Your task to perform on an android device: Search for seafood restaurants on Google Maps Image 0: 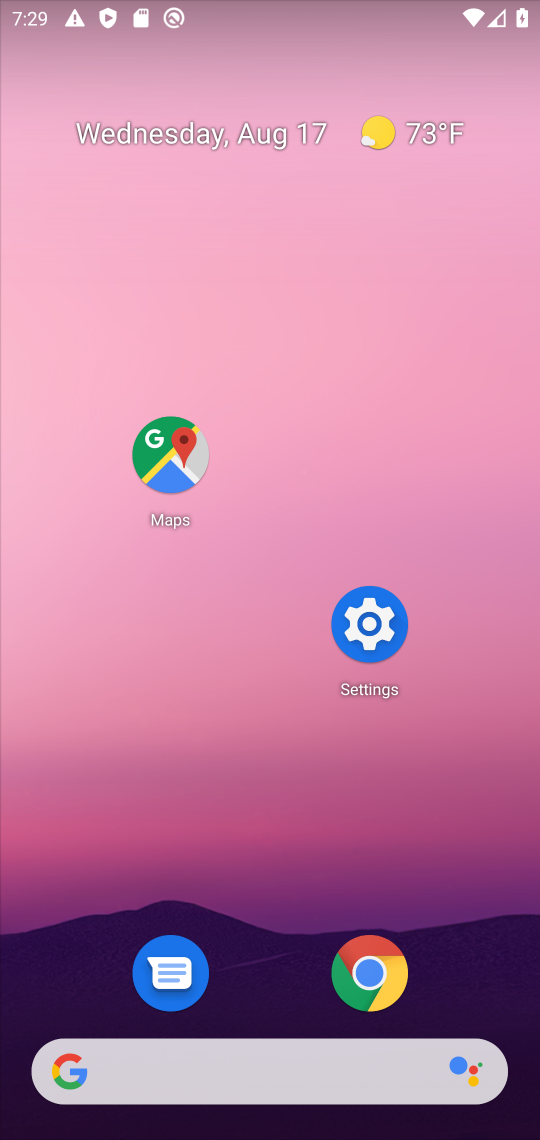
Step 0: click (167, 463)
Your task to perform on an android device: Search for seafood restaurants on Google Maps Image 1: 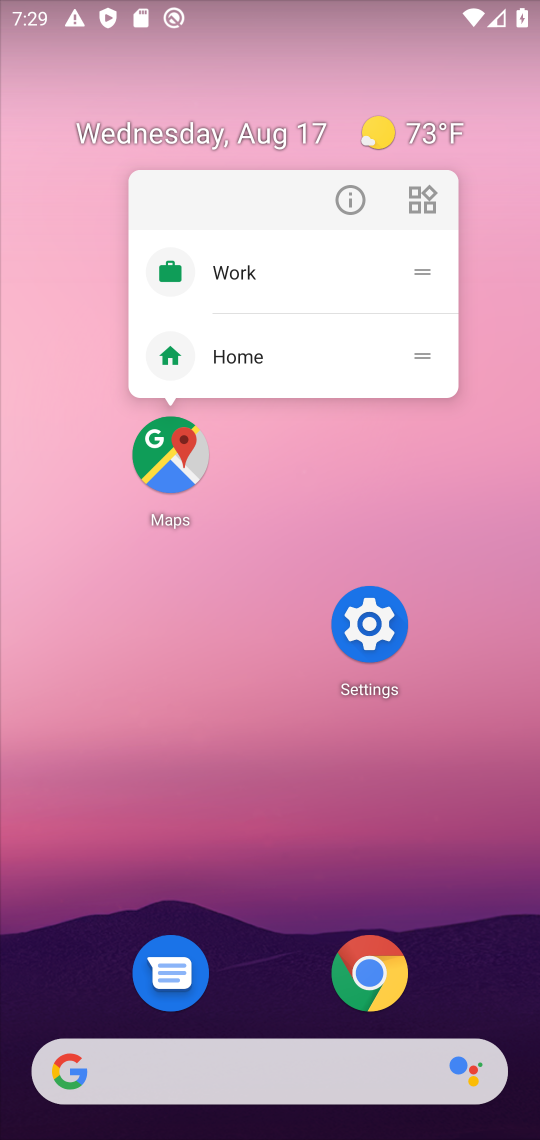
Step 1: click (171, 461)
Your task to perform on an android device: Search for seafood restaurants on Google Maps Image 2: 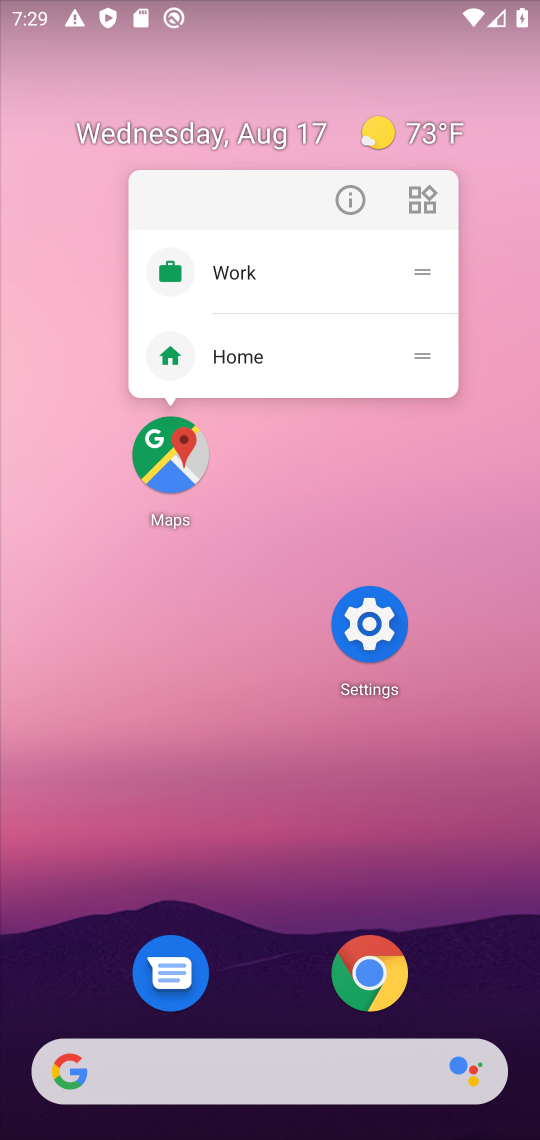
Step 2: click (171, 458)
Your task to perform on an android device: Search for seafood restaurants on Google Maps Image 3: 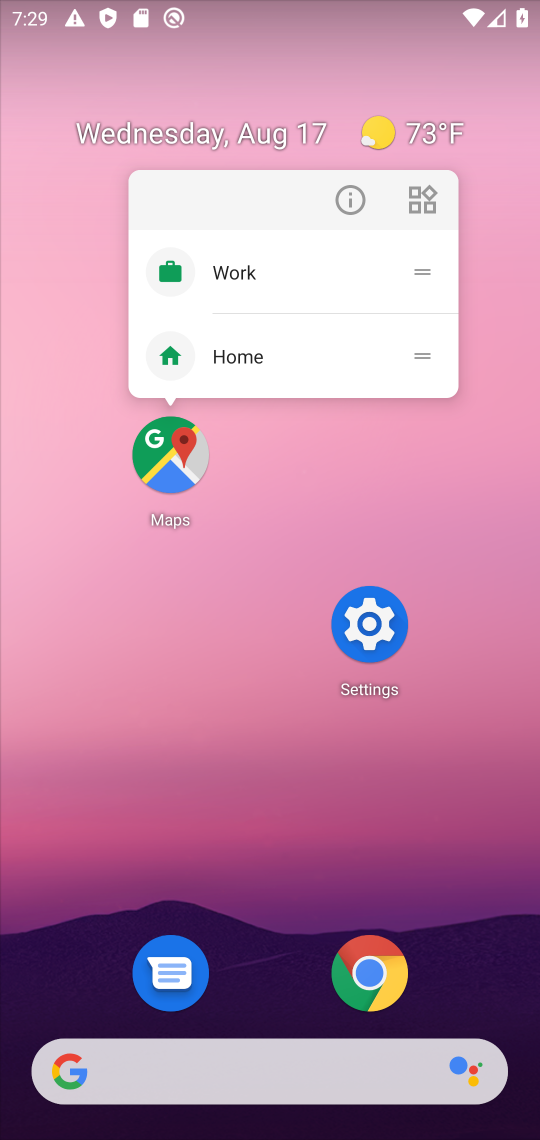
Step 3: click (170, 466)
Your task to perform on an android device: Search for seafood restaurants on Google Maps Image 4: 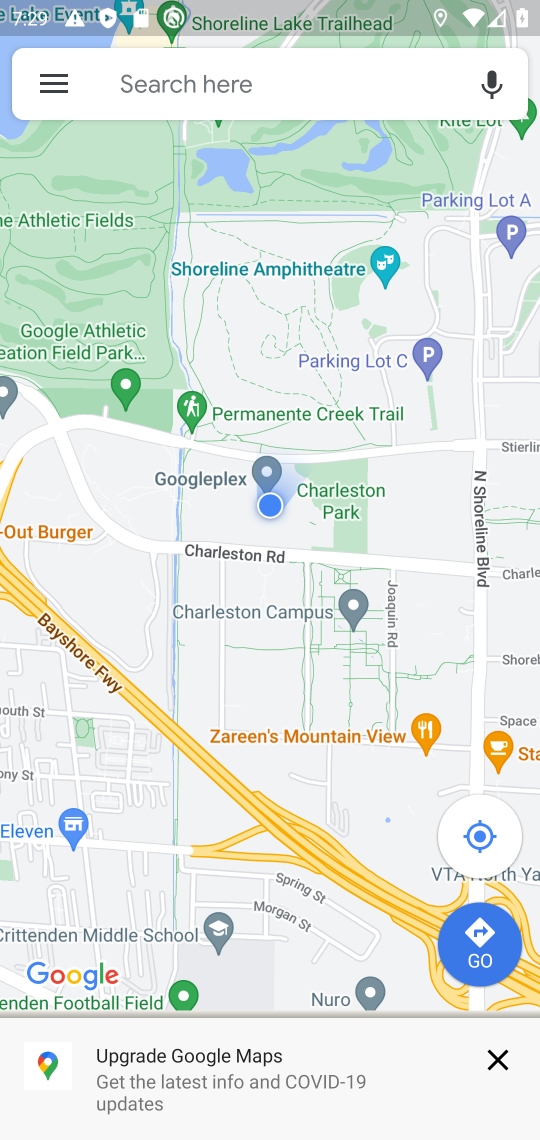
Step 4: click (242, 81)
Your task to perform on an android device: Search for seafood restaurants on Google Maps Image 5: 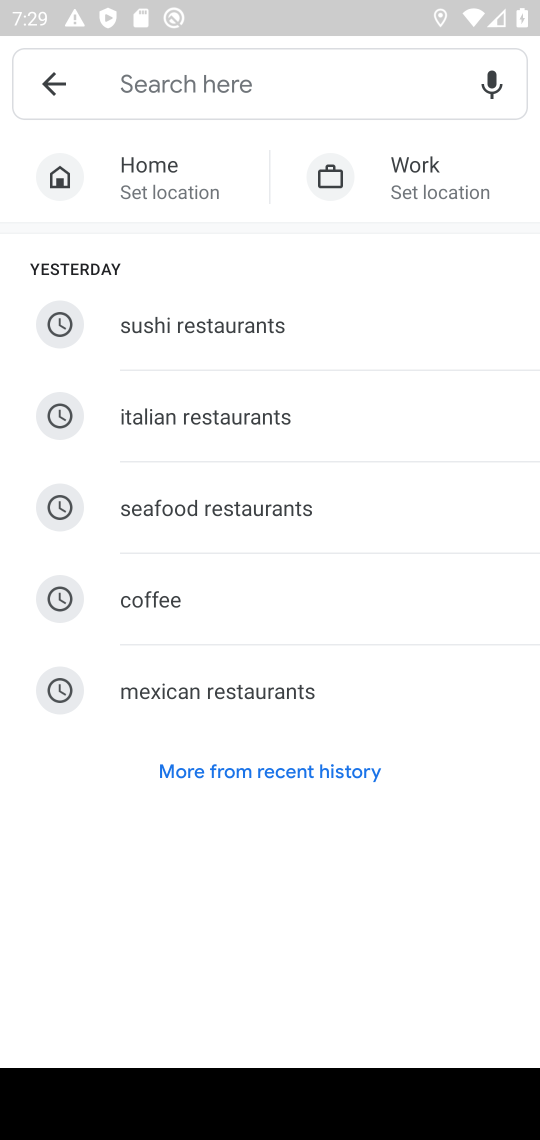
Step 5: click (130, 508)
Your task to perform on an android device: Search for seafood restaurants on Google Maps Image 6: 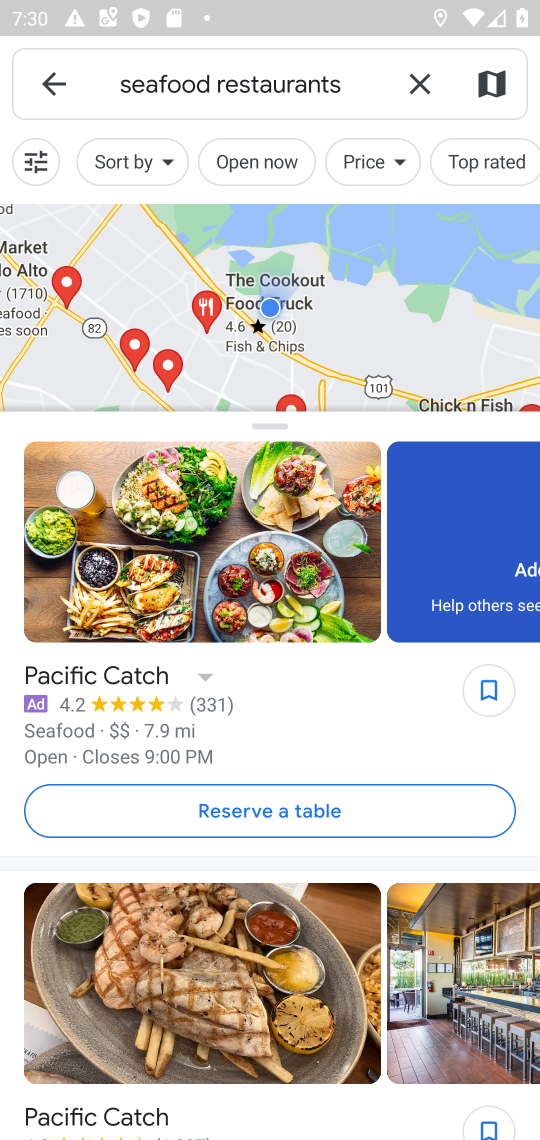
Step 6: task complete